Your task to perform on an android device: turn smart compose on in the gmail app Image 0: 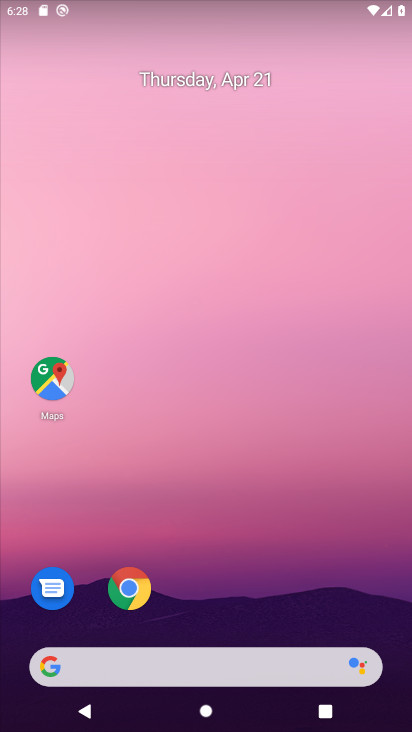
Step 0: drag from (225, 590) to (174, 271)
Your task to perform on an android device: turn smart compose on in the gmail app Image 1: 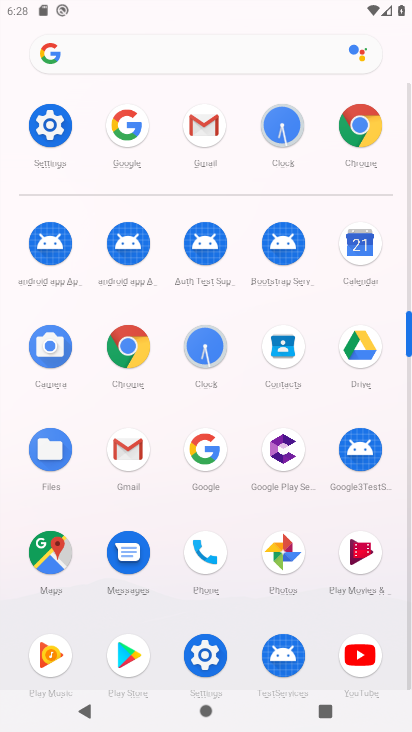
Step 1: click (218, 142)
Your task to perform on an android device: turn smart compose on in the gmail app Image 2: 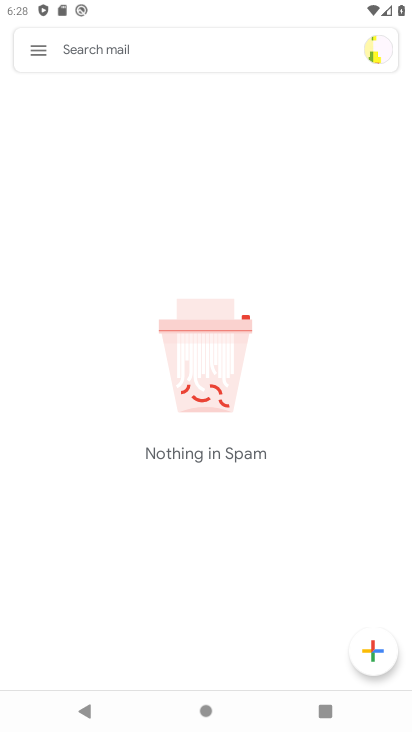
Step 2: click (26, 50)
Your task to perform on an android device: turn smart compose on in the gmail app Image 3: 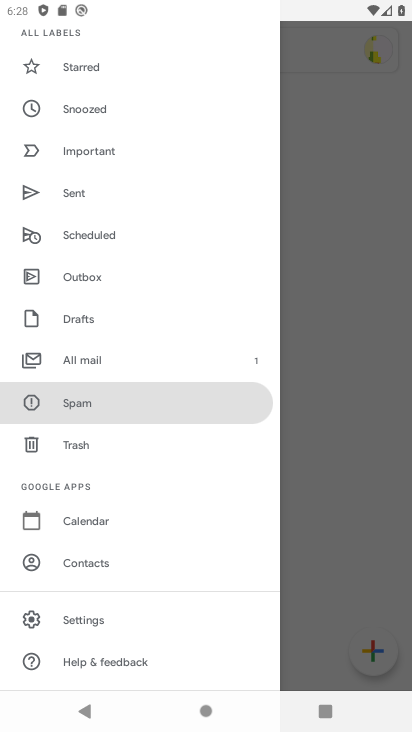
Step 3: click (104, 614)
Your task to perform on an android device: turn smart compose on in the gmail app Image 4: 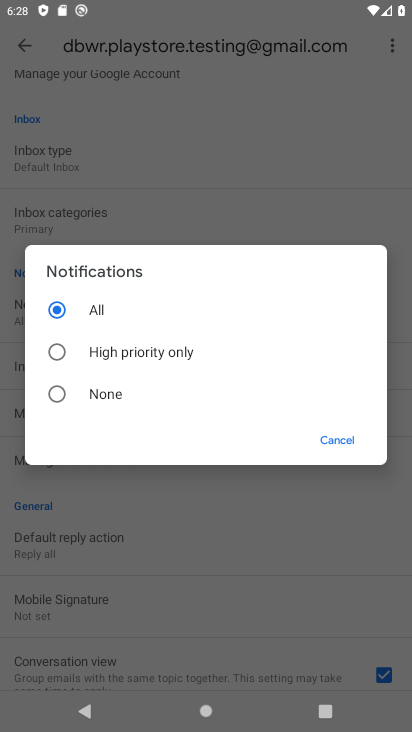
Step 4: click (335, 441)
Your task to perform on an android device: turn smart compose on in the gmail app Image 5: 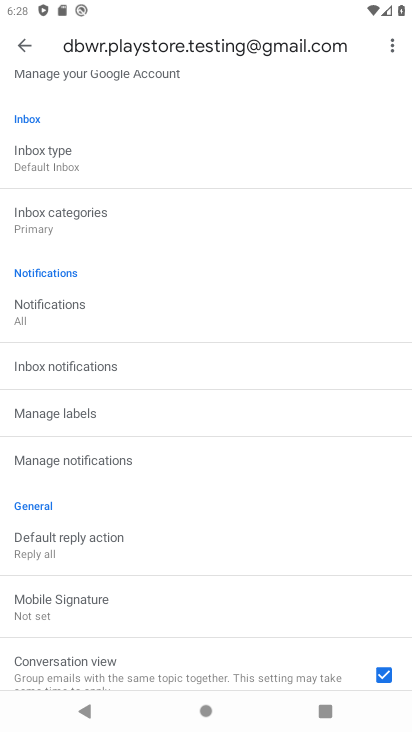
Step 5: drag from (149, 637) to (161, 301)
Your task to perform on an android device: turn smart compose on in the gmail app Image 6: 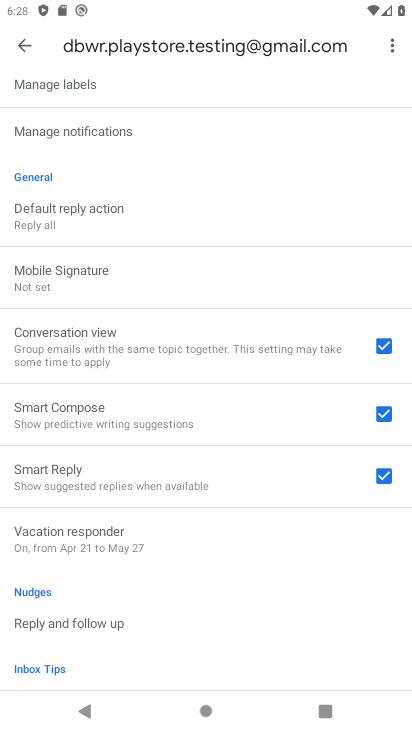
Step 6: click (372, 416)
Your task to perform on an android device: turn smart compose on in the gmail app Image 7: 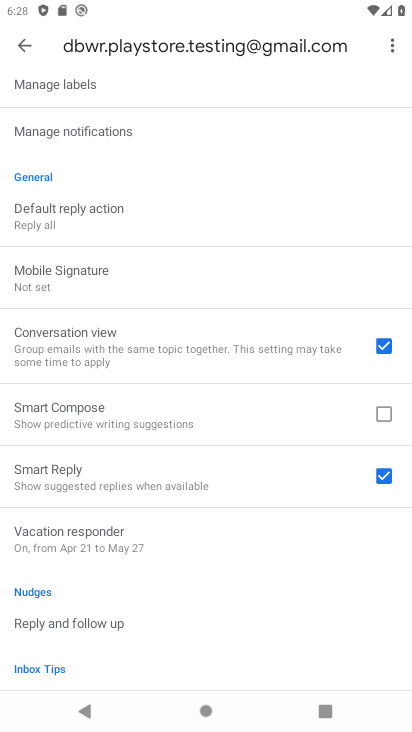
Step 7: click (383, 418)
Your task to perform on an android device: turn smart compose on in the gmail app Image 8: 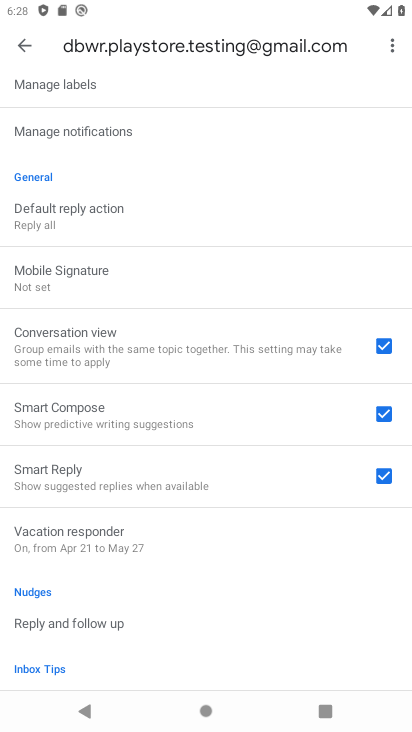
Step 8: task complete